Your task to perform on an android device: open app "Pinterest" (install if not already installed) and enter user name: "Switzerland@yahoo.com" and password: "arithmetics" Image 0: 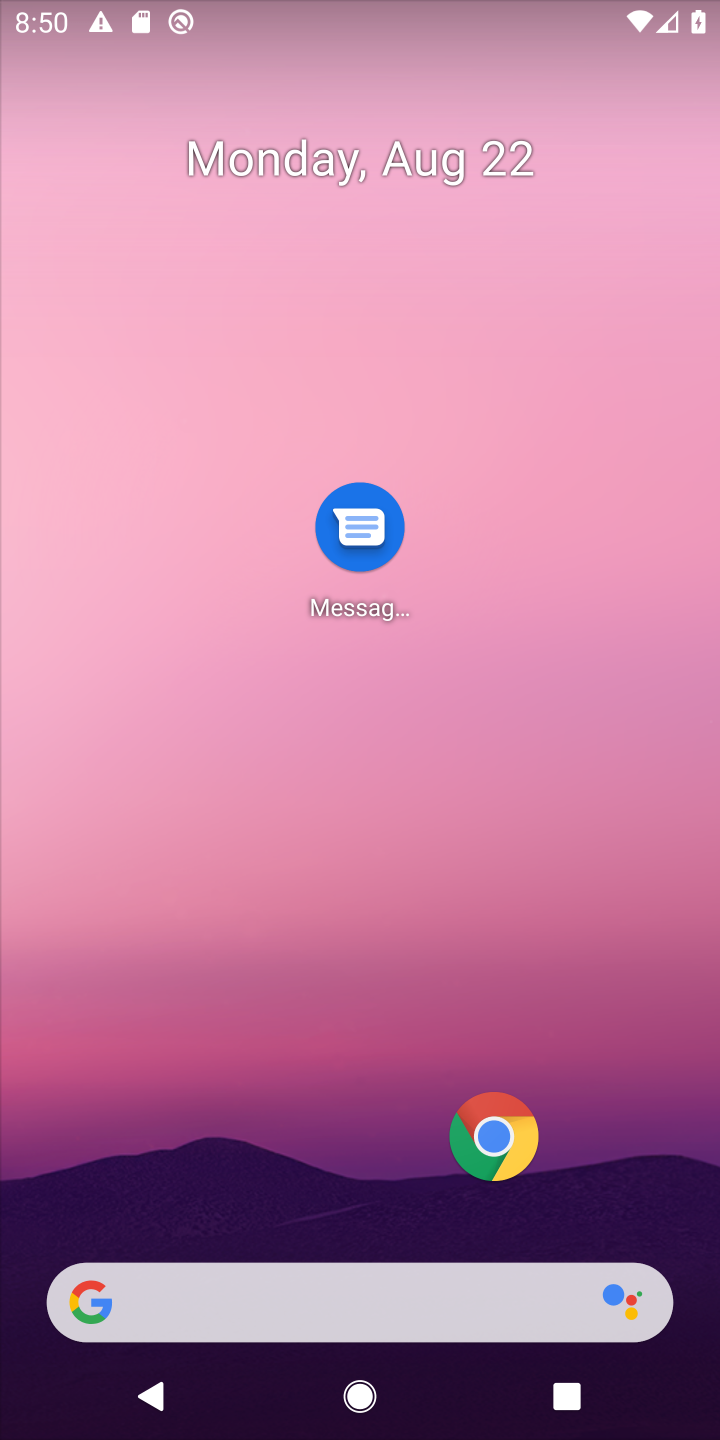
Step 0: drag from (262, 1086) to (271, 304)
Your task to perform on an android device: open app "Pinterest" (install if not already installed) and enter user name: "Switzerland@yahoo.com" and password: "arithmetics" Image 1: 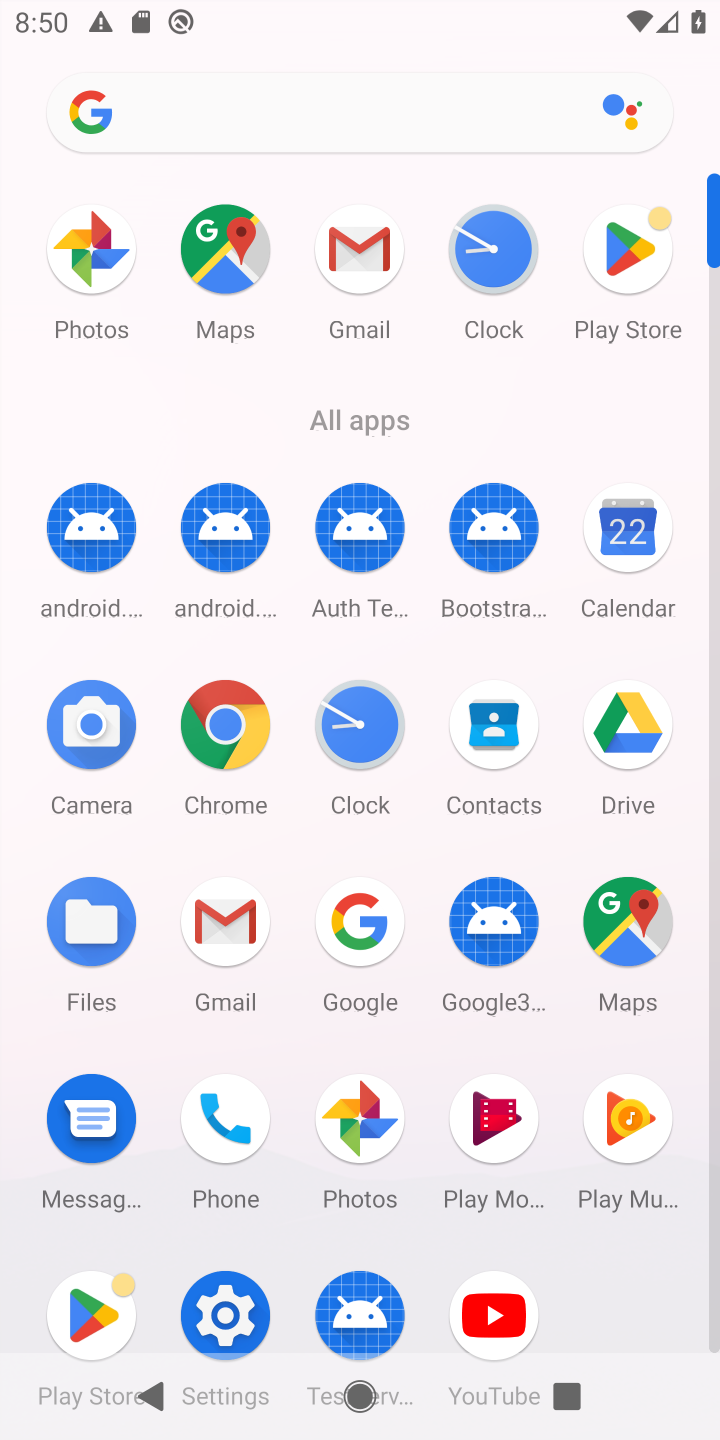
Step 1: click (586, 256)
Your task to perform on an android device: open app "Pinterest" (install if not already installed) and enter user name: "Switzerland@yahoo.com" and password: "arithmetics" Image 2: 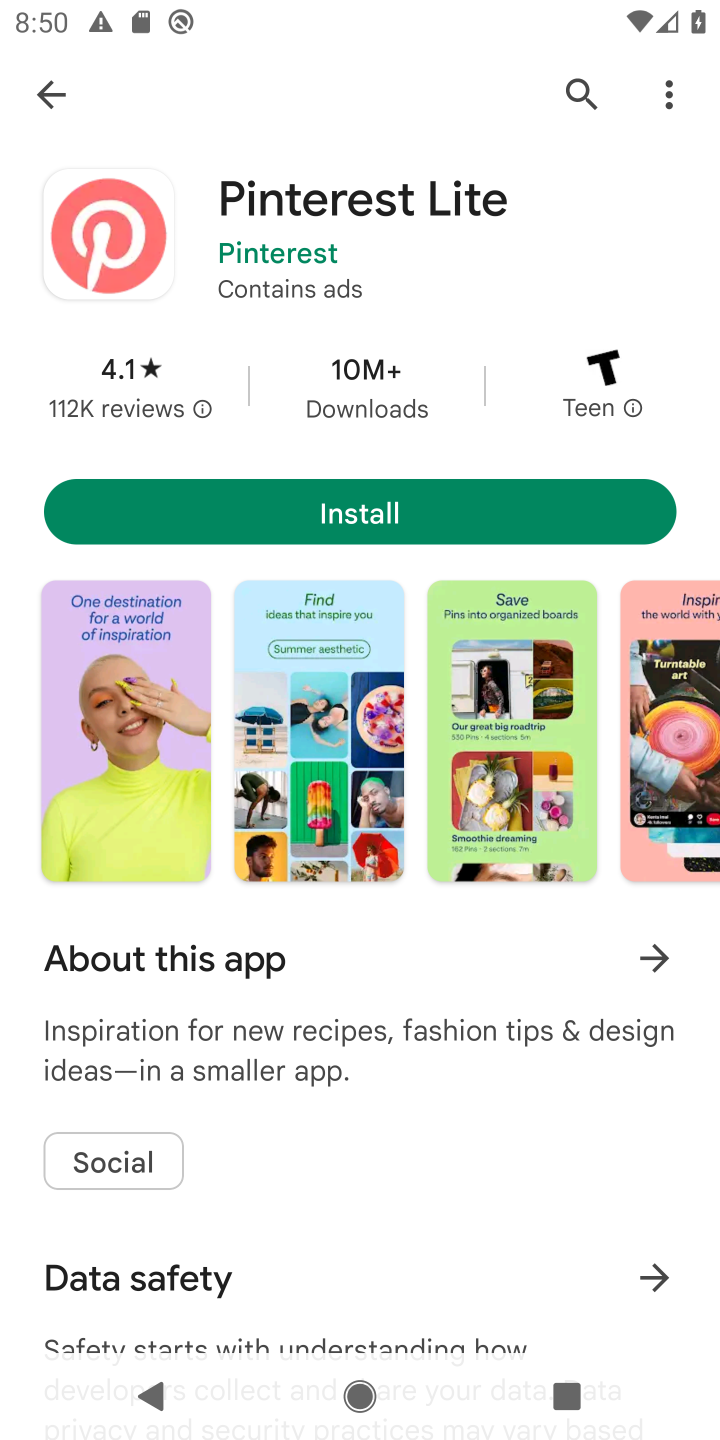
Step 2: click (289, 501)
Your task to perform on an android device: open app "Pinterest" (install if not already installed) and enter user name: "Switzerland@yahoo.com" and password: "arithmetics" Image 3: 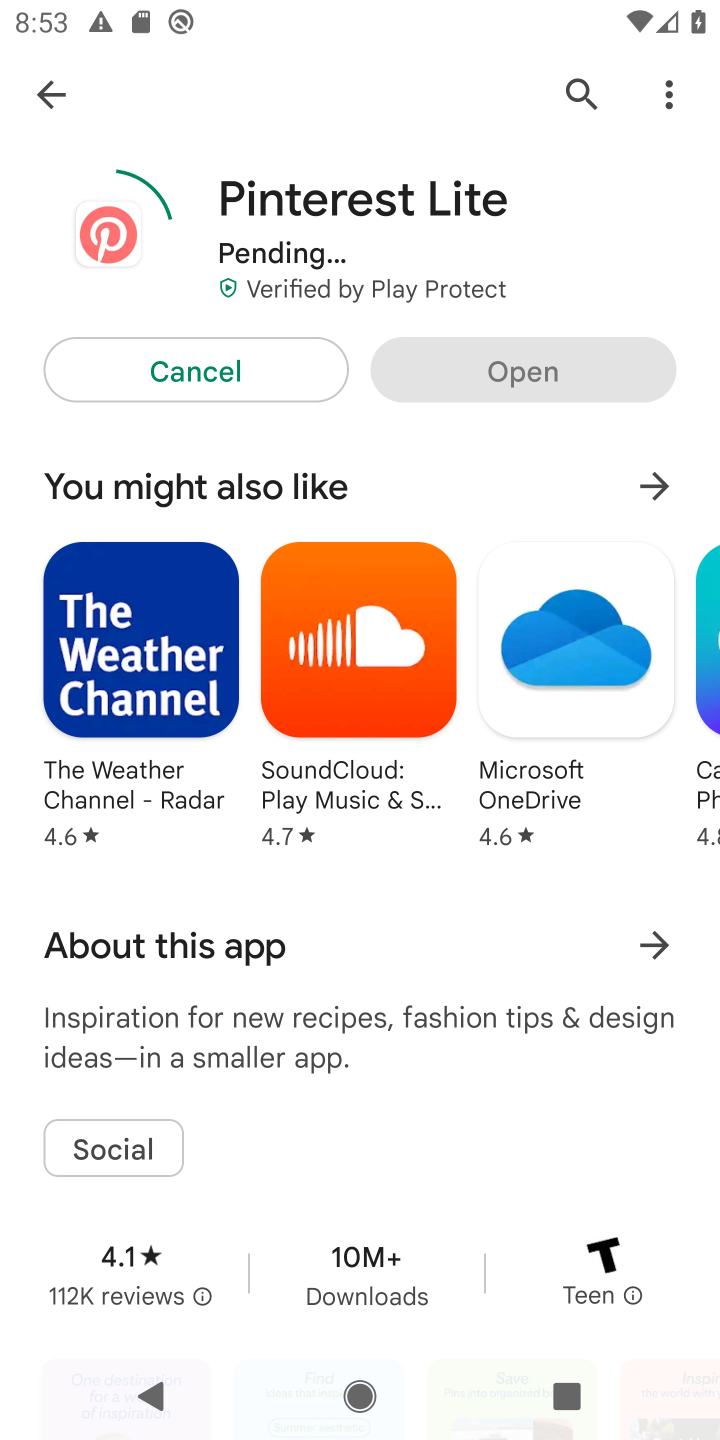
Step 3: task complete